Your task to perform on an android device: Add "razer blackwidow" to the cart on newegg.com, then select checkout. Image 0: 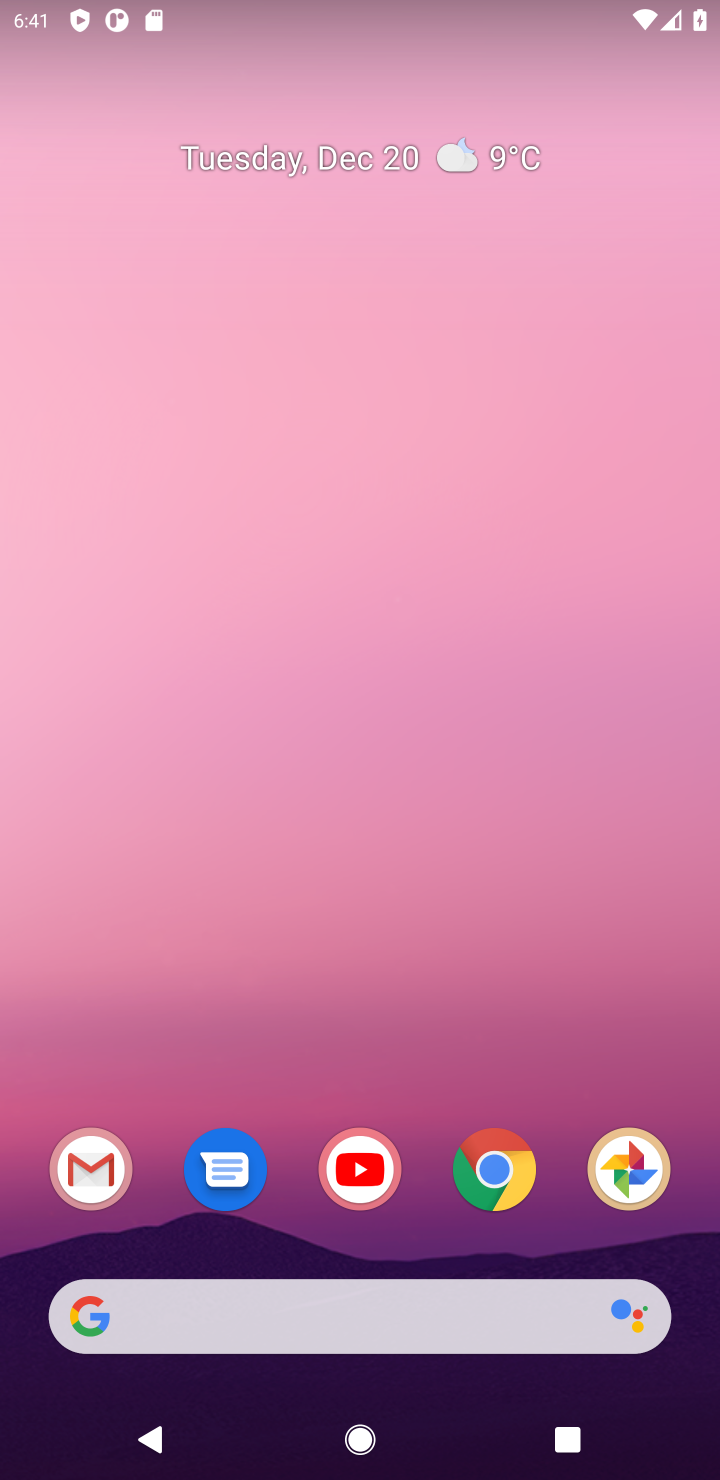
Step 0: click (514, 1143)
Your task to perform on an android device: Add "razer blackwidow" to the cart on newegg.com, then select checkout. Image 1: 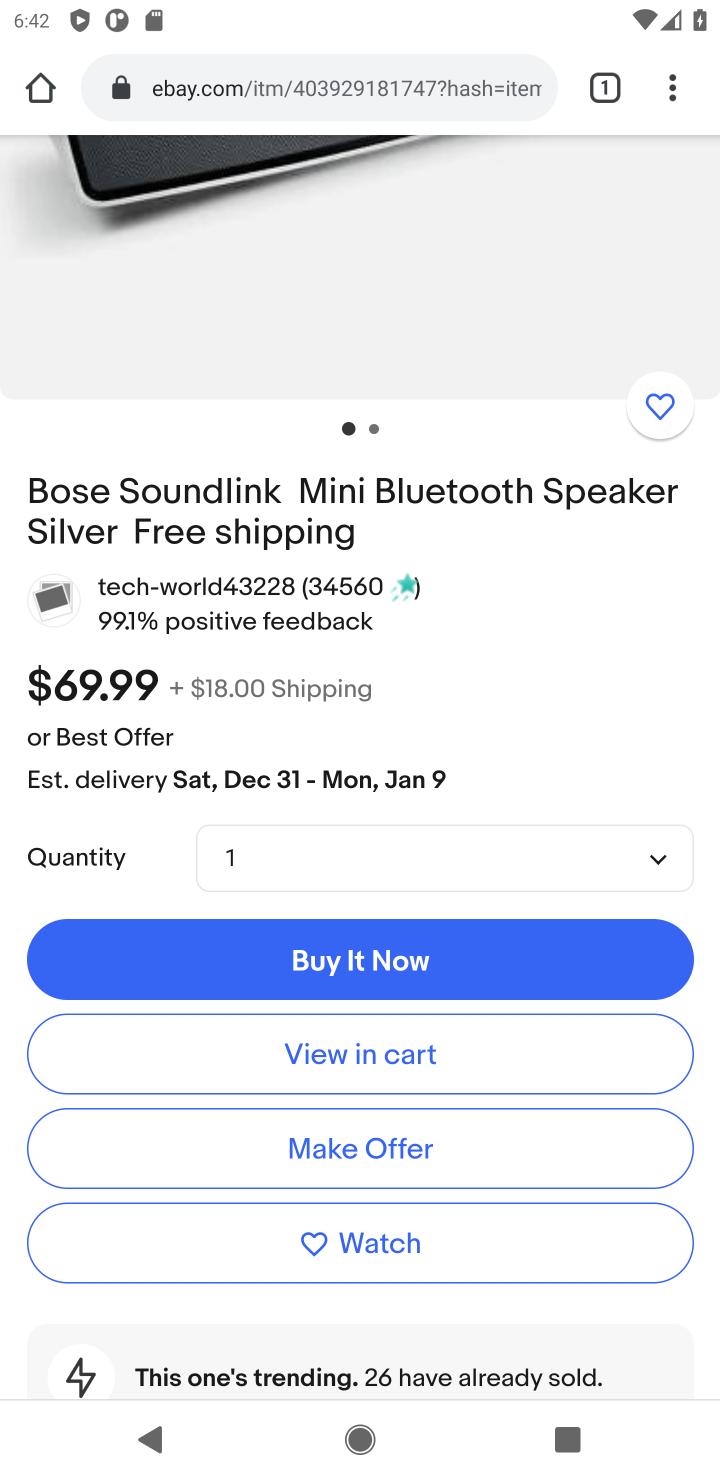
Step 1: click (313, 76)
Your task to perform on an android device: Add "razer blackwidow" to the cart on newegg.com, then select checkout. Image 2: 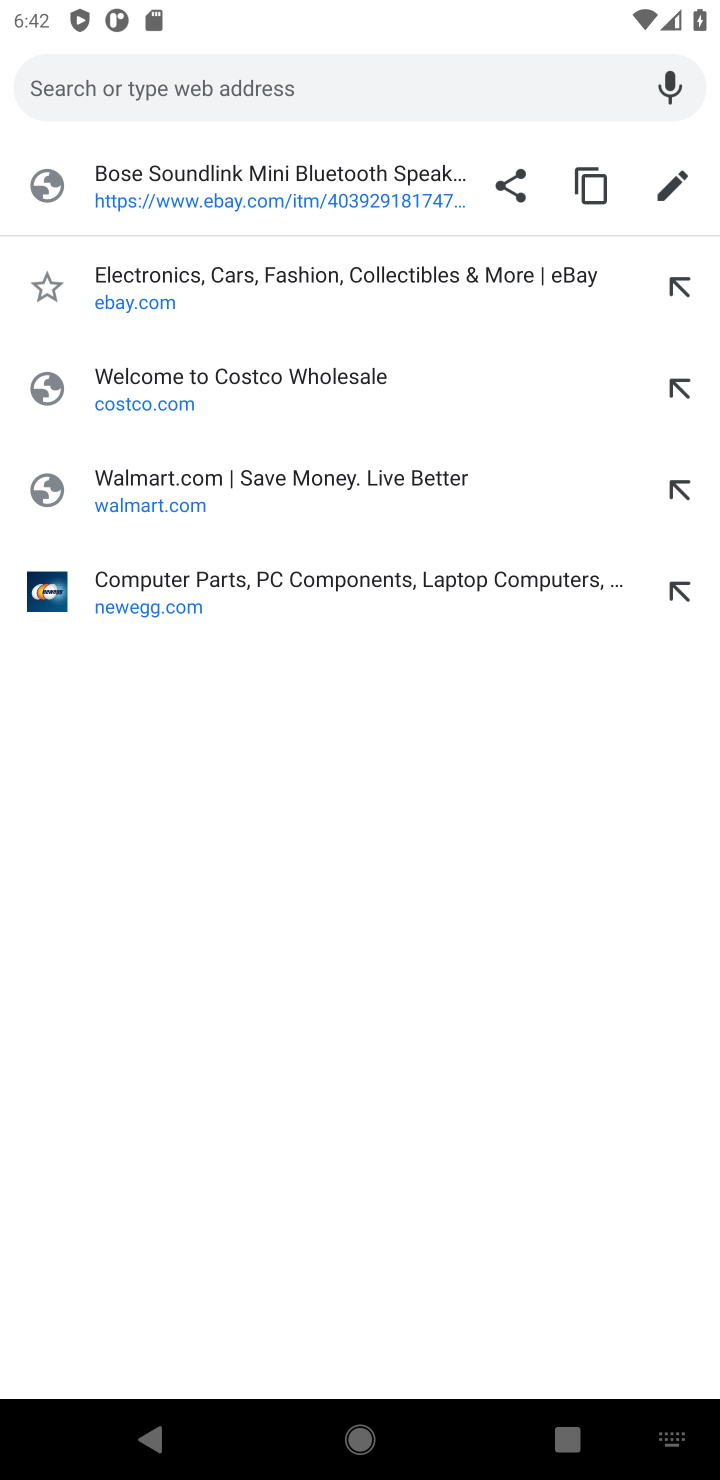
Step 2: type "newegg"
Your task to perform on an android device: Add "razer blackwidow" to the cart on newegg.com, then select checkout. Image 3: 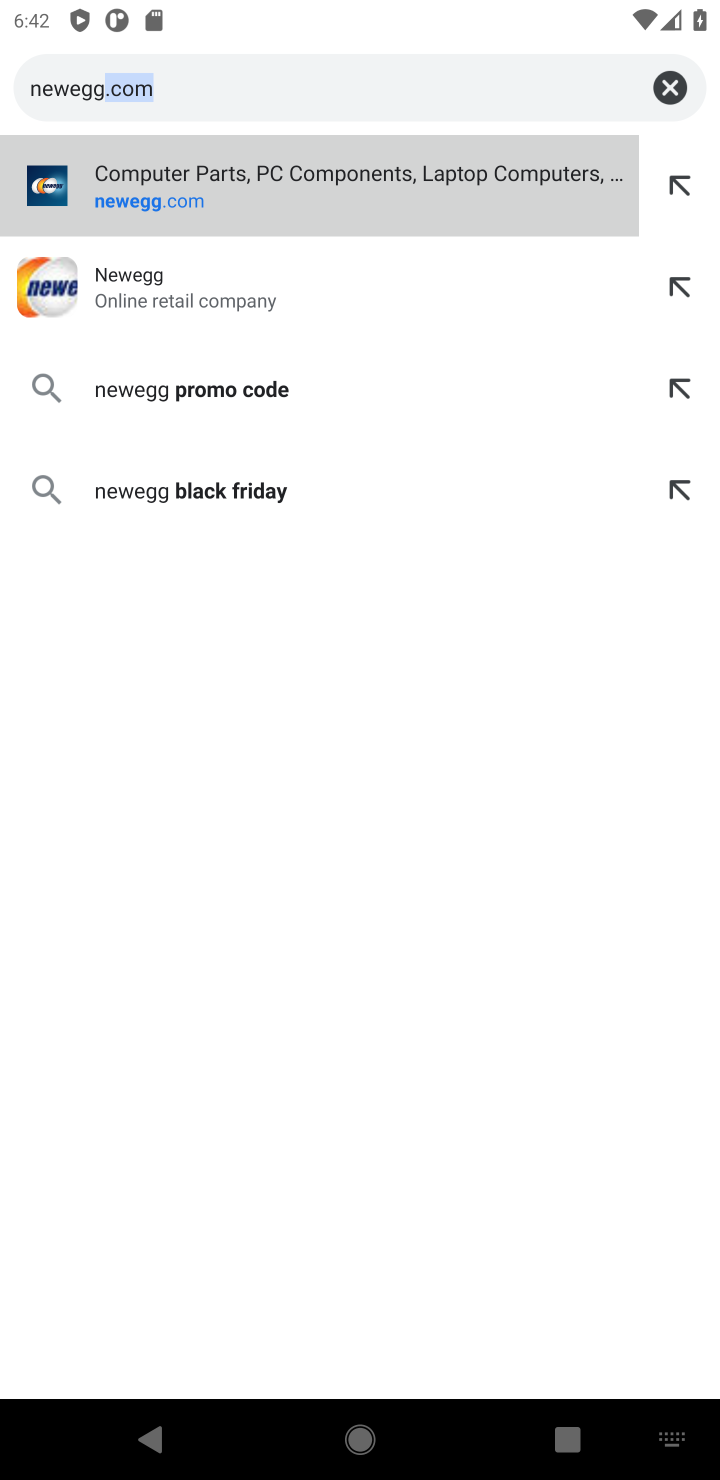
Step 3: click (183, 209)
Your task to perform on an android device: Add "razer blackwidow" to the cart on newegg.com, then select checkout. Image 4: 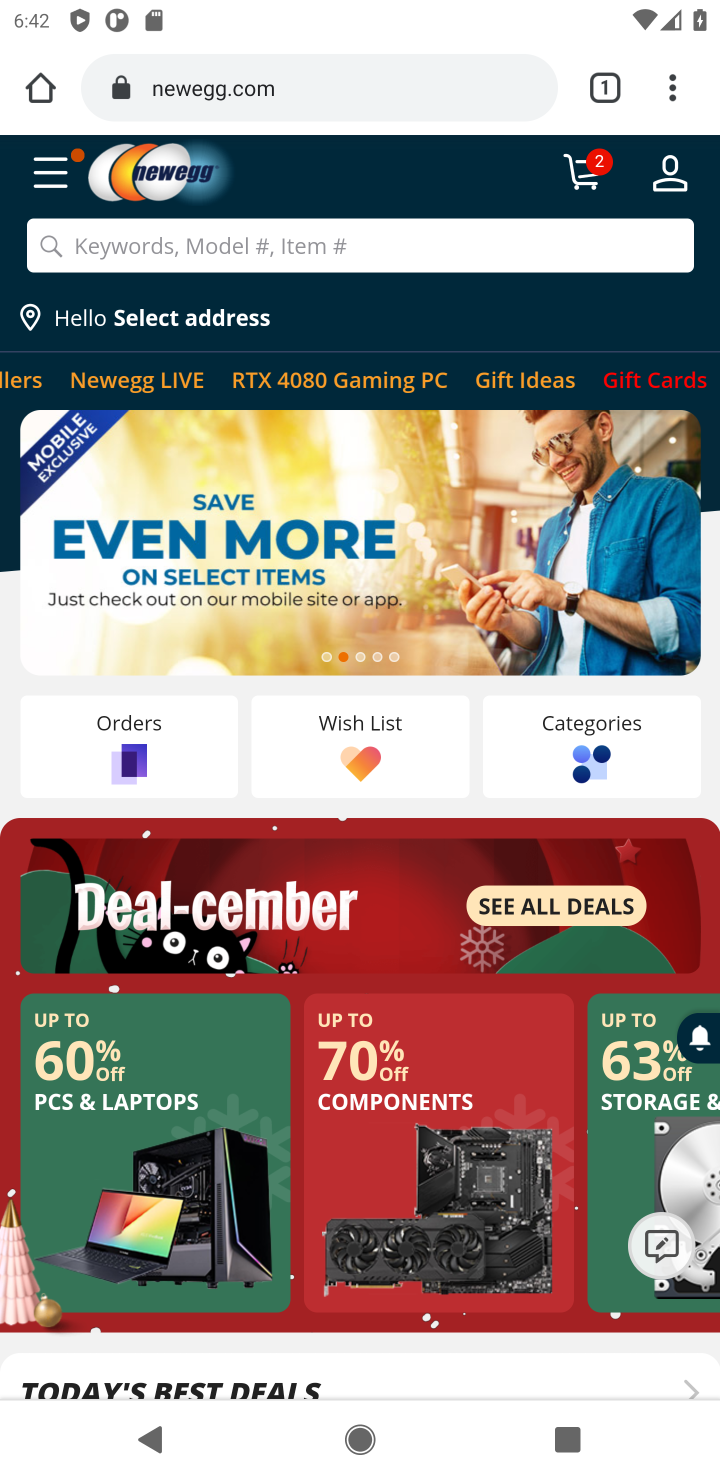
Step 4: click (191, 240)
Your task to perform on an android device: Add "razer blackwidow" to the cart on newegg.com, then select checkout. Image 5: 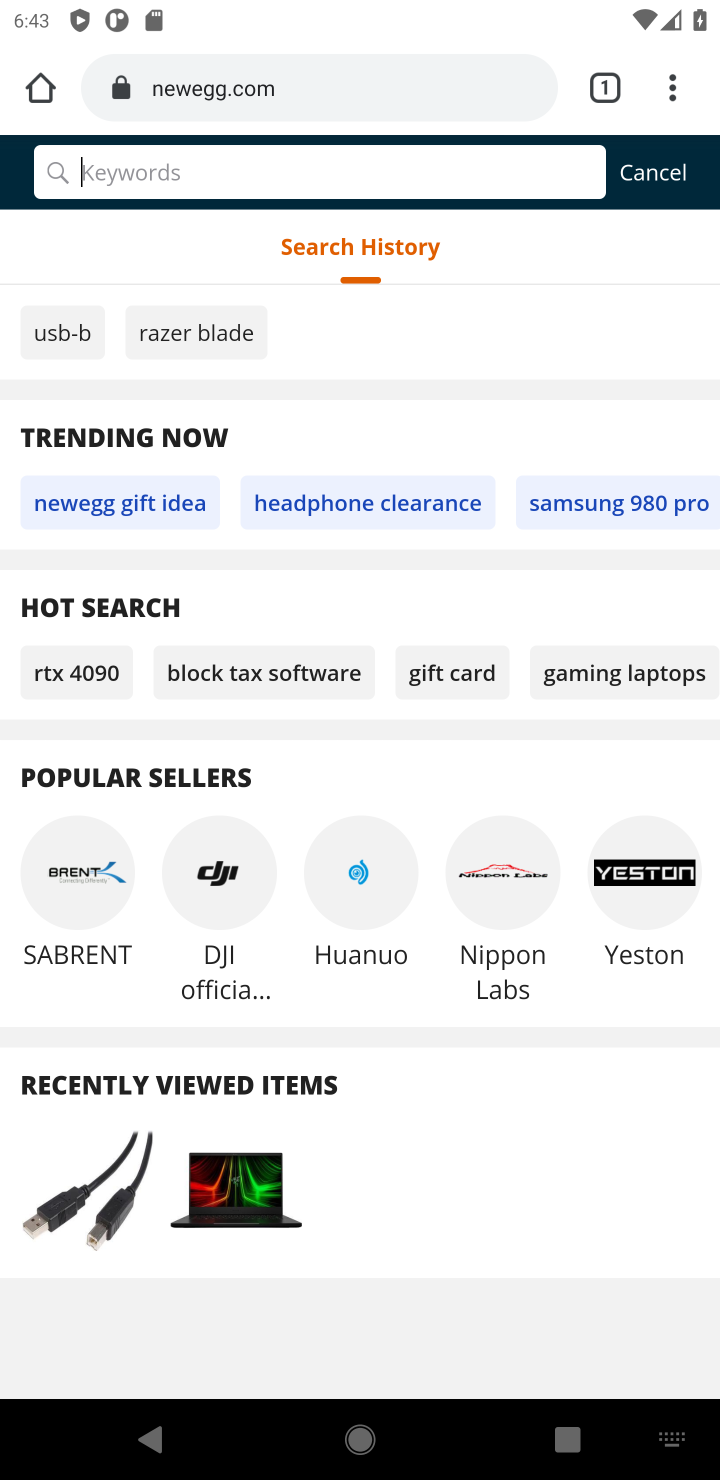
Step 5: type "razer blackwidow"
Your task to perform on an android device: Add "razer blackwidow" to the cart on newegg.com, then select checkout. Image 6: 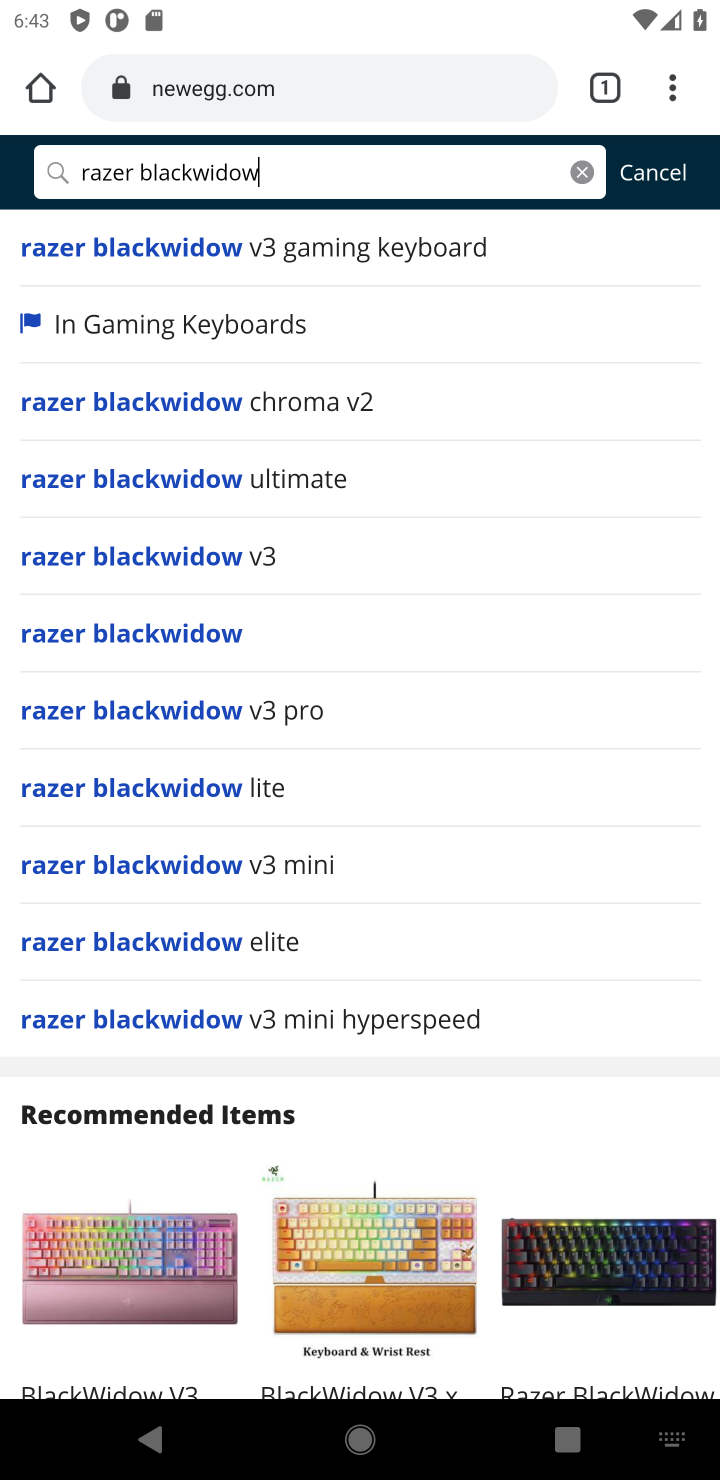
Step 6: click (220, 251)
Your task to perform on an android device: Add "razer blackwidow" to the cart on newegg.com, then select checkout. Image 7: 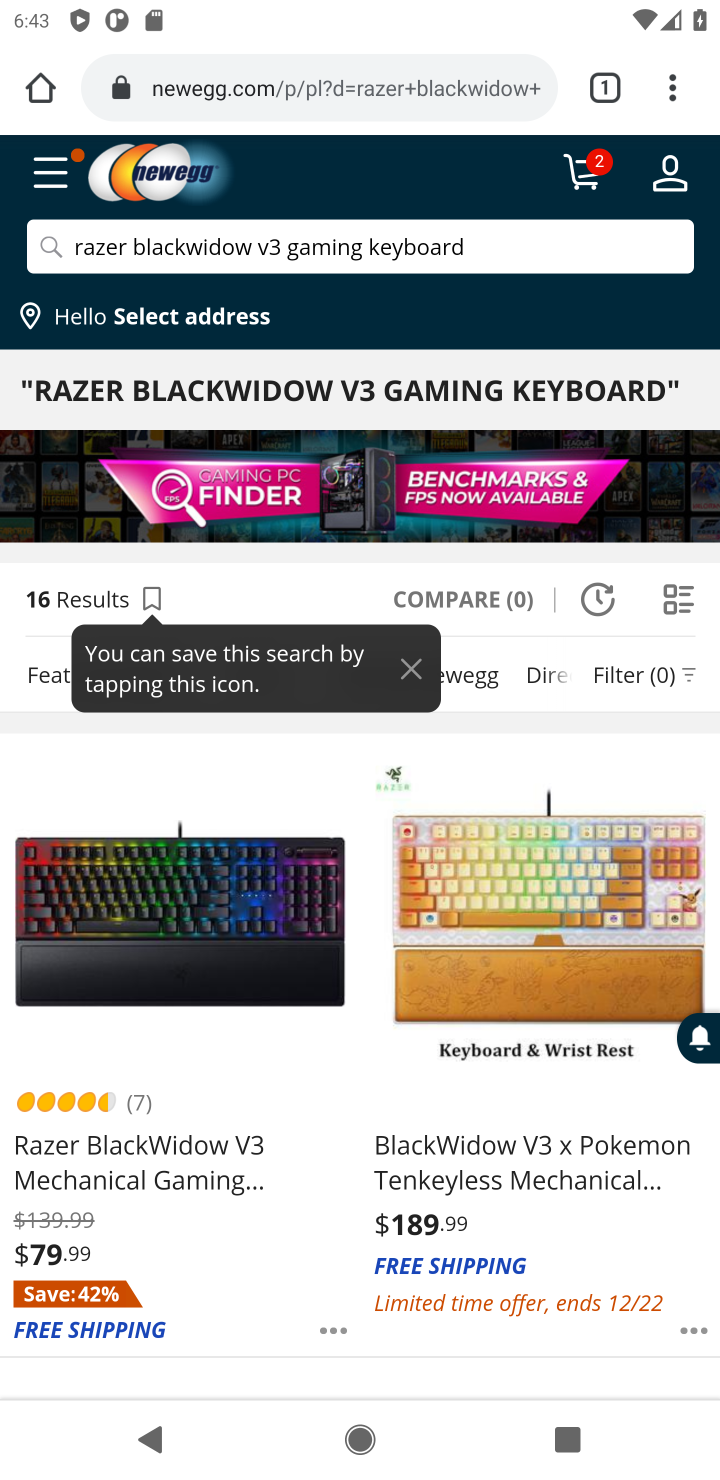
Step 7: click (174, 956)
Your task to perform on an android device: Add "razer blackwidow" to the cart on newegg.com, then select checkout. Image 8: 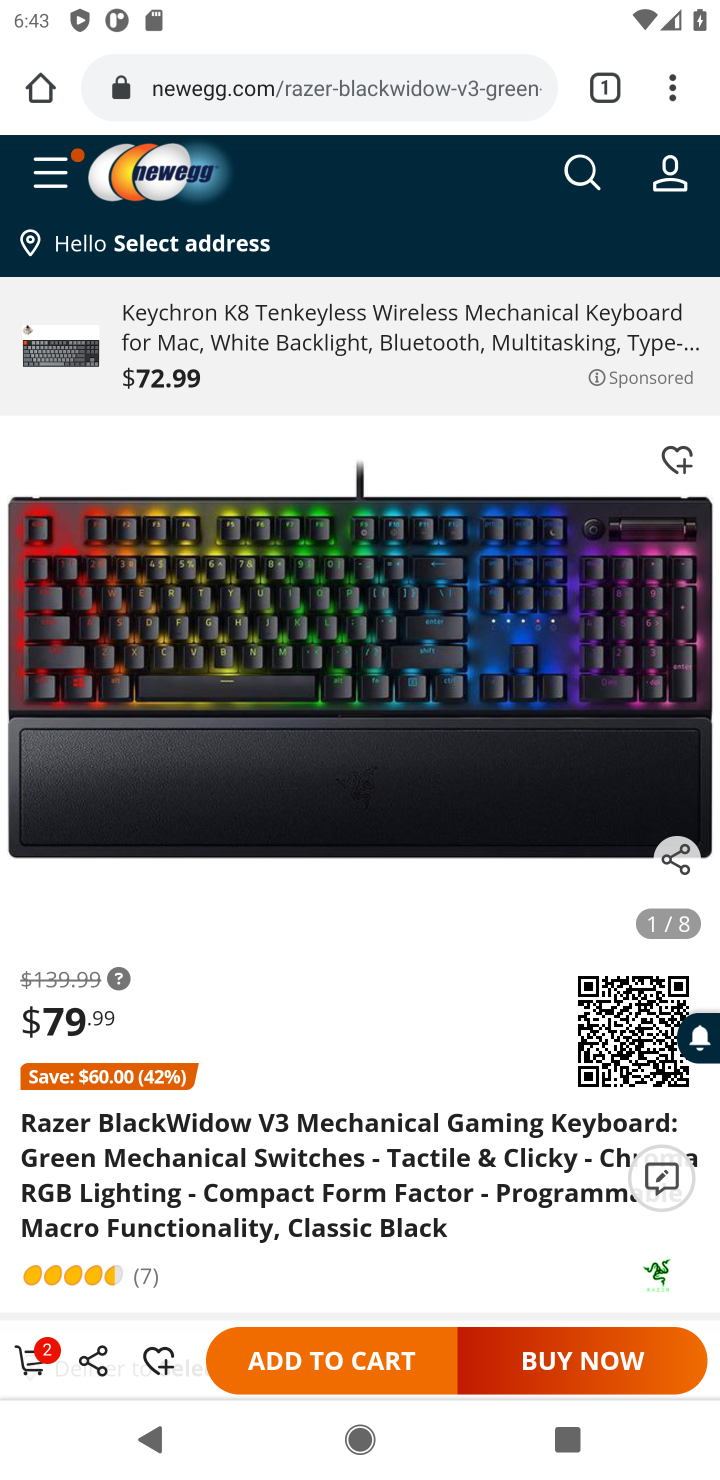
Step 8: click (253, 1390)
Your task to perform on an android device: Add "razer blackwidow" to the cart on newegg.com, then select checkout. Image 9: 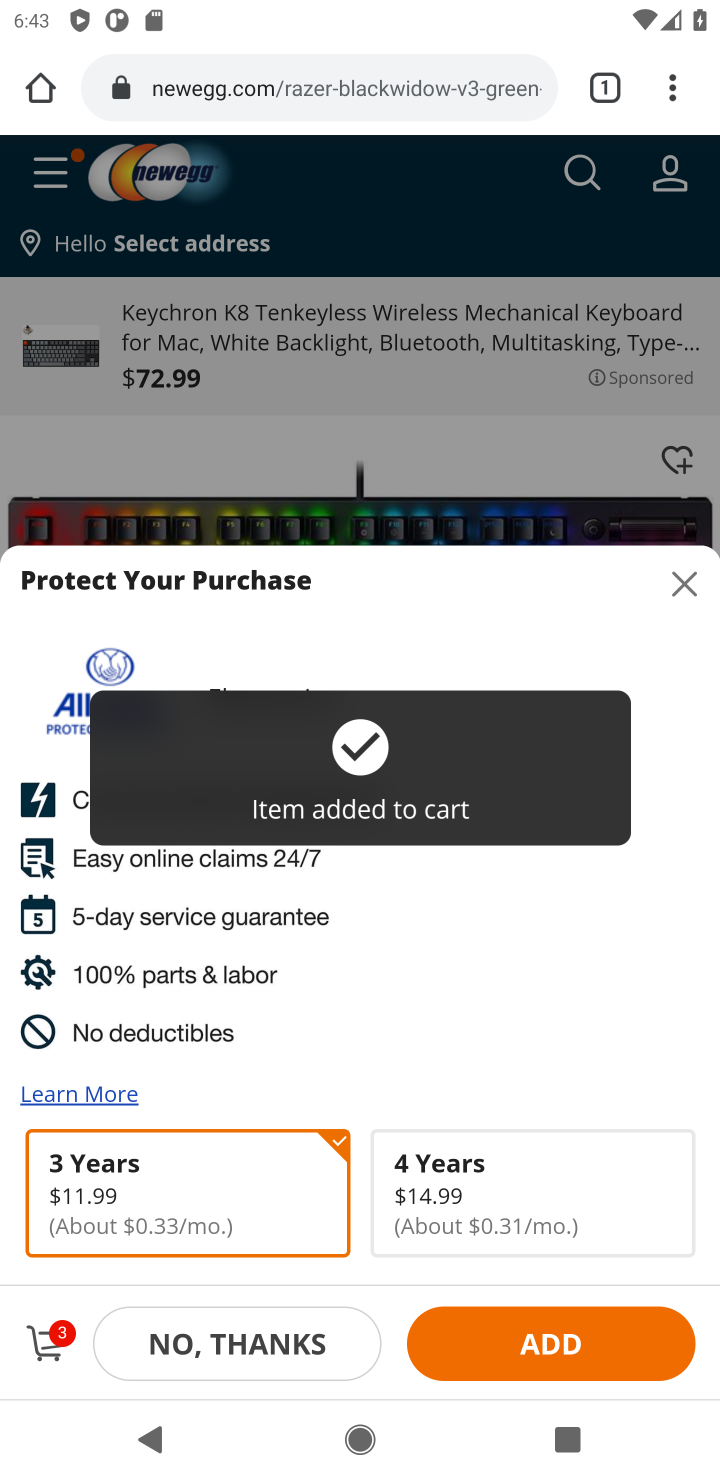
Step 9: task complete